Your task to perform on an android device: Toggle the flashlight Image 0: 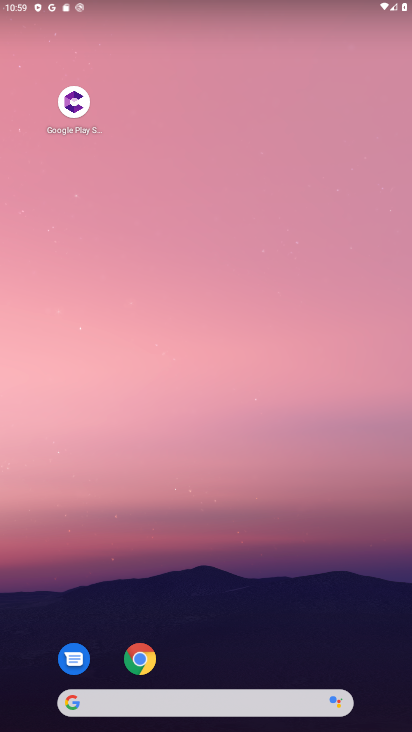
Step 0: drag from (228, 614) to (248, 89)
Your task to perform on an android device: Toggle the flashlight Image 1: 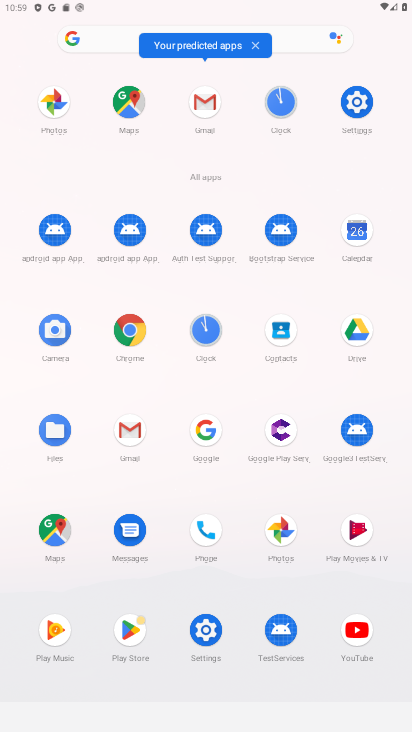
Step 1: click (360, 103)
Your task to perform on an android device: Toggle the flashlight Image 2: 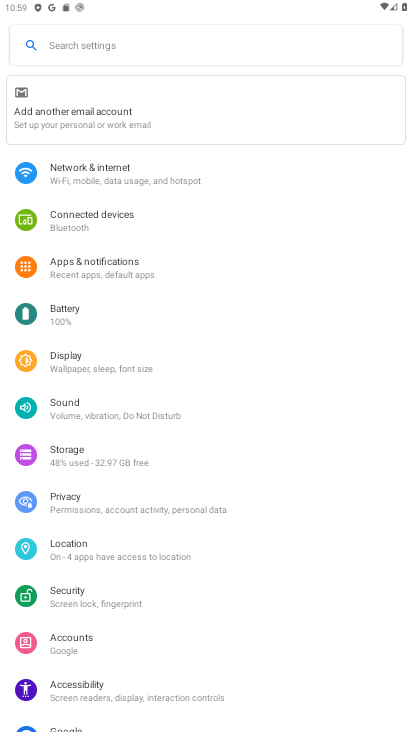
Step 2: click (65, 358)
Your task to perform on an android device: Toggle the flashlight Image 3: 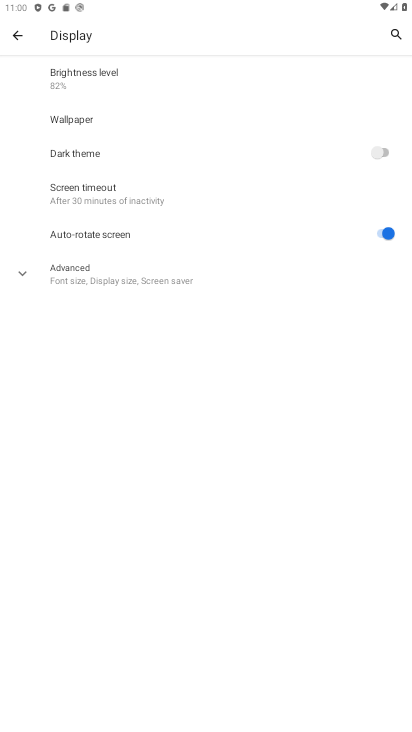
Step 3: task complete